Your task to perform on an android device: toggle show notifications on the lock screen Image 0: 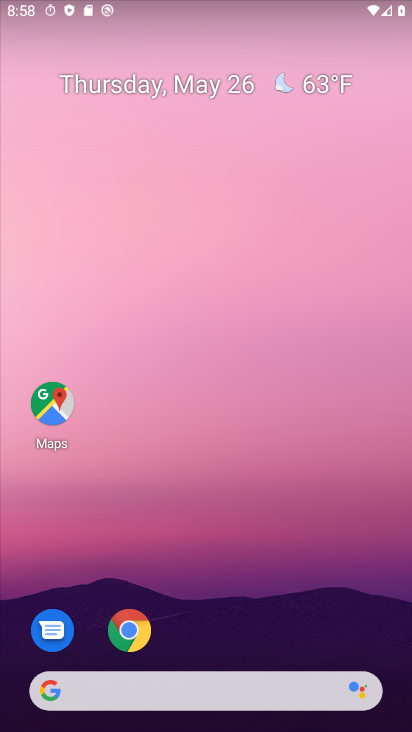
Step 0: drag from (289, 716) to (246, 0)
Your task to perform on an android device: toggle show notifications on the lock screen Image 1: 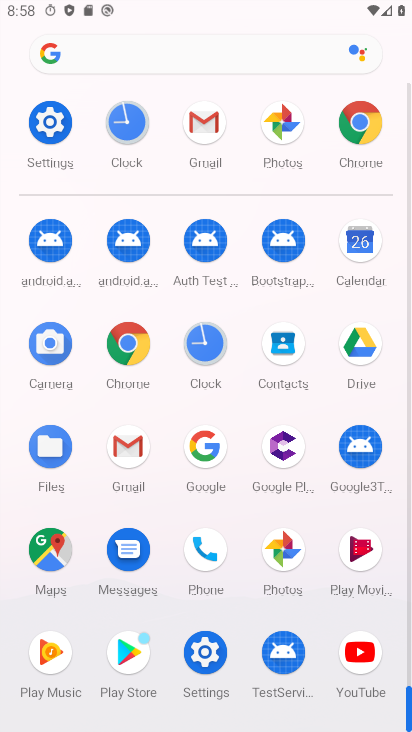
Step 1: click (36, 137)
Your task to perform on an android device: toggle show notifications on the lock screen Image 2: 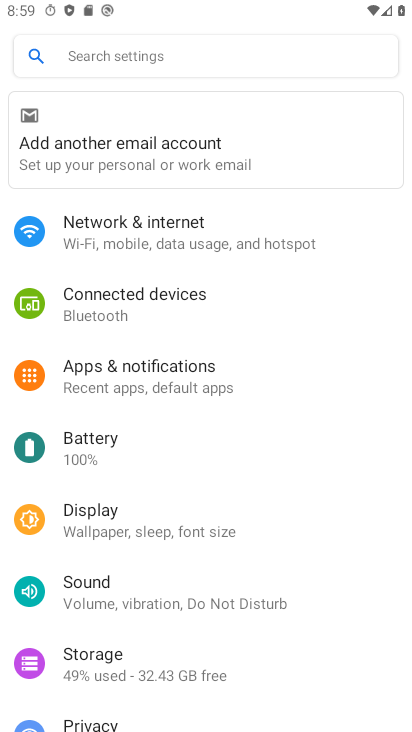
Step 2: click (124, 367)
Your task to perform on an android device: toggle show notifications on the lock screen Image 3: 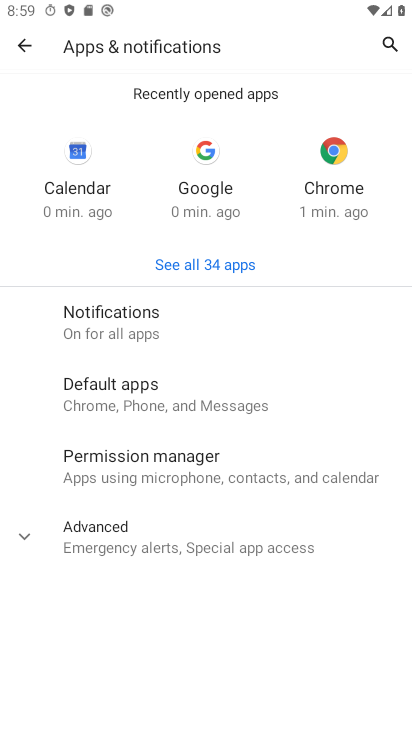
Step 3: click (95, 322)
Your task to perform on an android device: toggle show notifications on the lock screen Image 4: 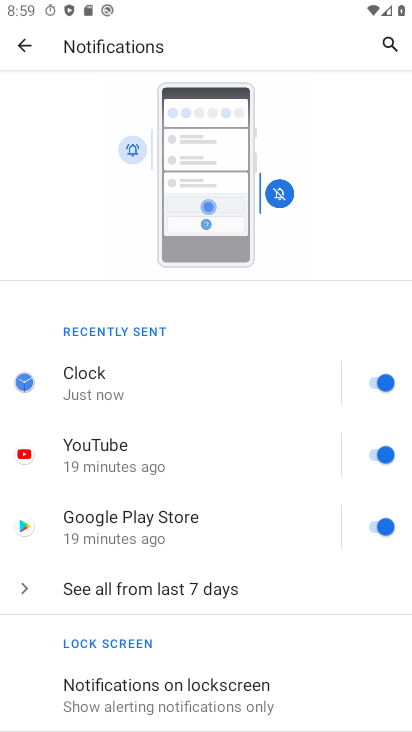
Step 4: drag from (208, 554) to (195, 261)
Your task to perform on an android device: toggle show notifications on the lock screen Image 5: 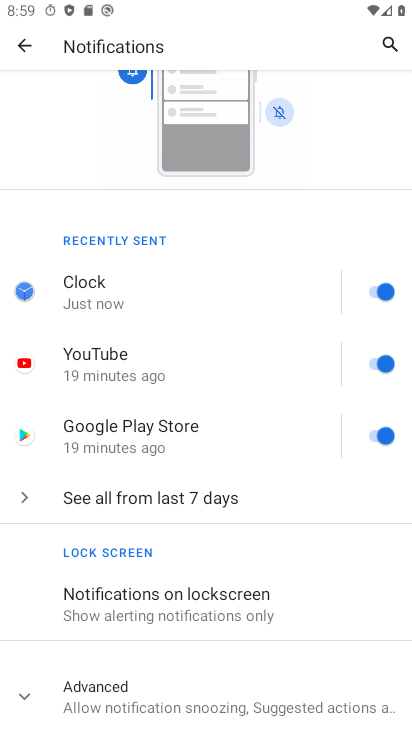
Step 5: click (148, 603)
Your task to perform on an android device: toggle show notifications on the lock screen Image 6: 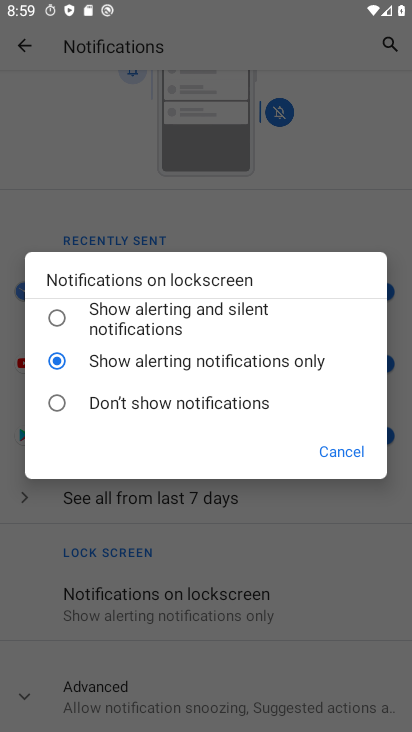
Step 6: click (58, 318)
Your task to perform on an android device: toggle show notifications on the lock screen Image 7: 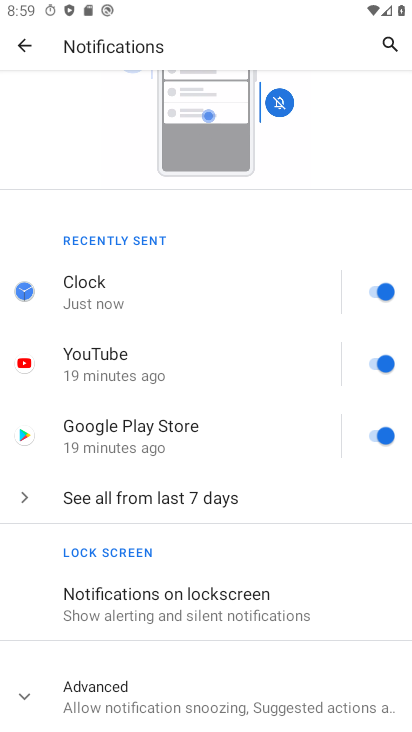
Step 7: task complete